Your task to perform on an android device: toggle location history Image 0: 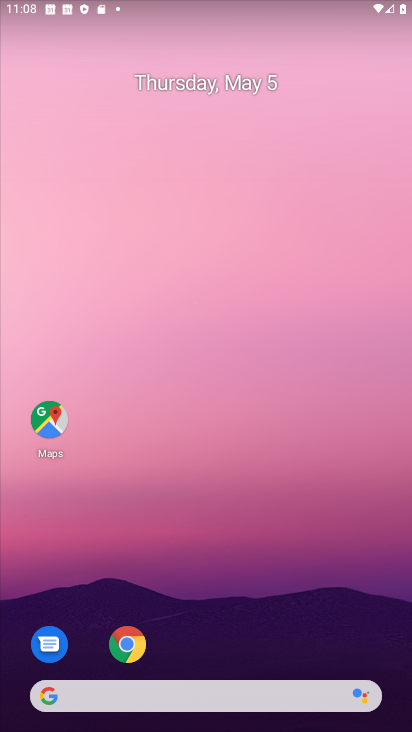
Step 0: drag from (206, 591) to (216, 158)
Your task to perform on an android device: toggle location history Image 1: 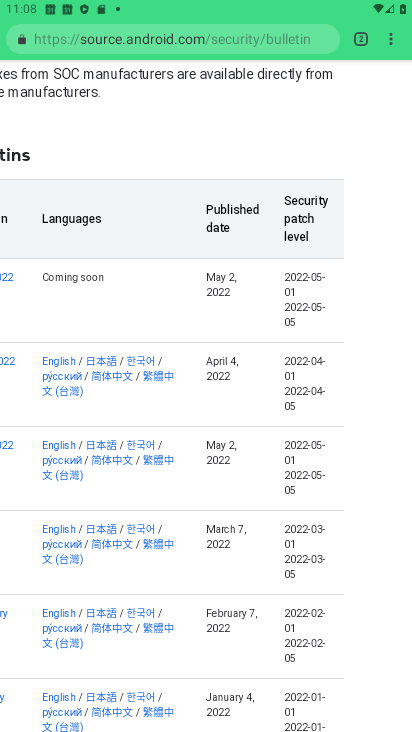
Step 1: drag from (186, 654) to (310, 224)
Your task to perform on an android device: toggle location history Image 2: 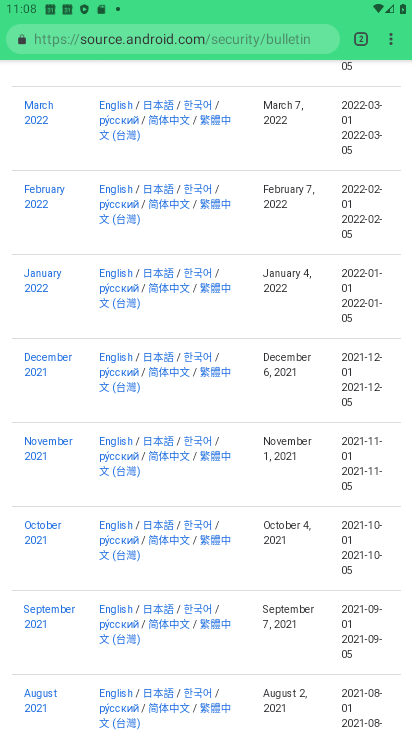
Step 2: drag from (221, 656) to (279, 324)
Your task to perform on an android device: toggle location history Image 3: 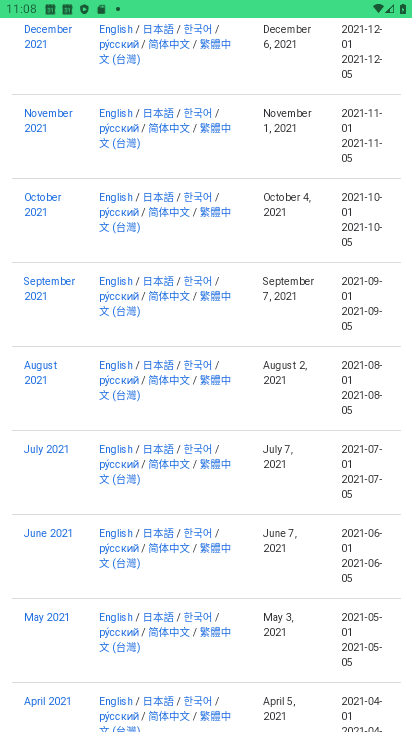
Step 3: drag from (244, 671) to (265, 305)
Your task to perform on an android device: toggle location history Image 4: 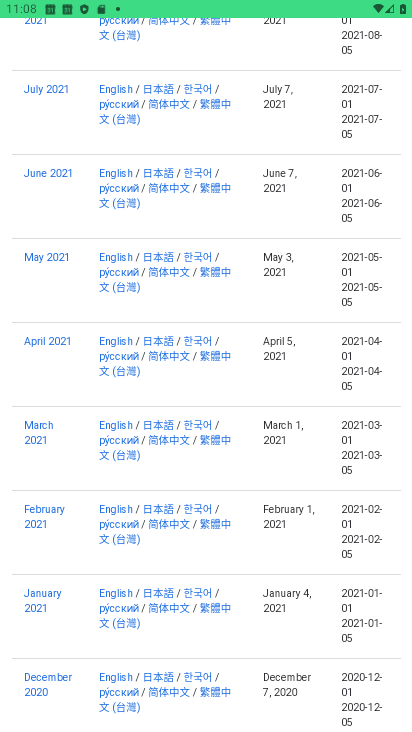
Step 4: drag from (226, 651) to (249, 340)
Your task to perform on an android device: toggle location history Image 5: 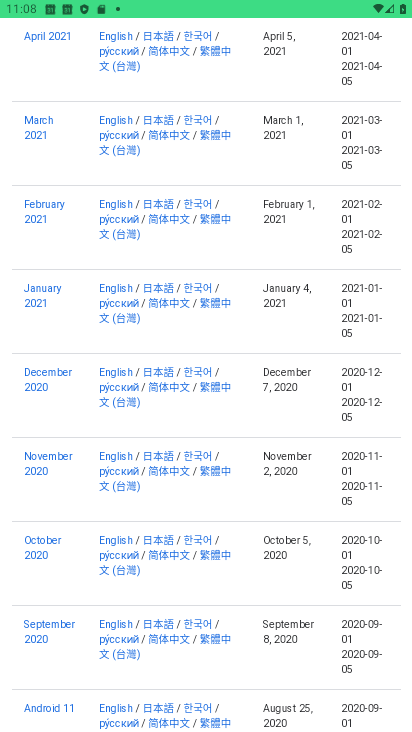
Step 5: drag from (261, 663) to (257, 404)
Your task to perform on an android device: toggle location history Image 6: 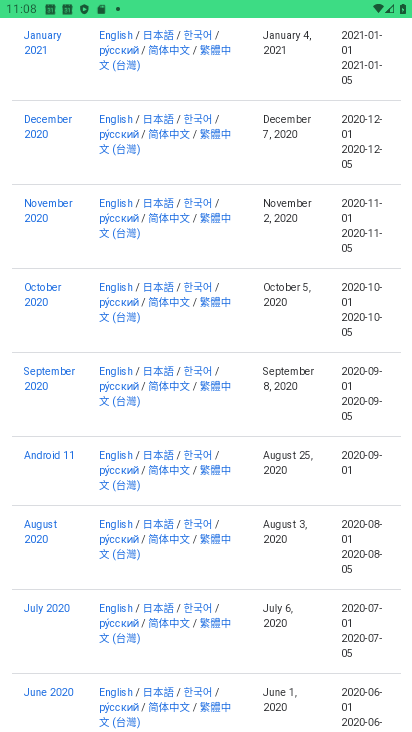
Step 6: drag from (261, 673) to (260, 445)
Your task to perform on an android device: toggle location history Image 7: 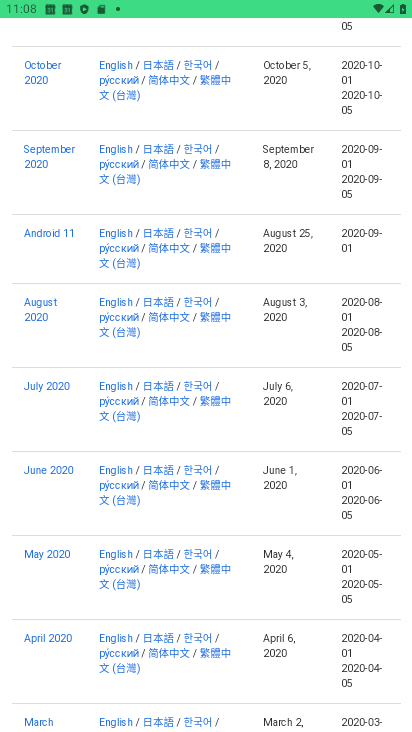
Step 7: drag from (245, 678) to (279, 431)
Your task to perform on an android device: toggle location history Image 8: 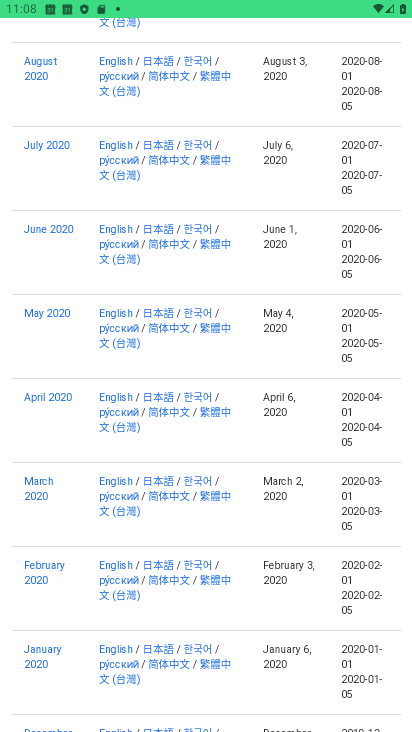
Step 8: drag from (254, 689) to (288, 444)
Your task to perform on an android device: toggle location history Image 9: 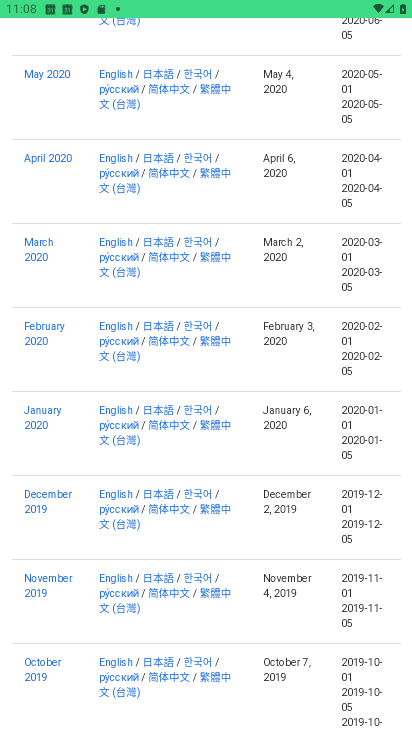
Step 9: drag from (288, 450) to (332, 707)
Your task to perform on an android device: toggle location history Image 10: 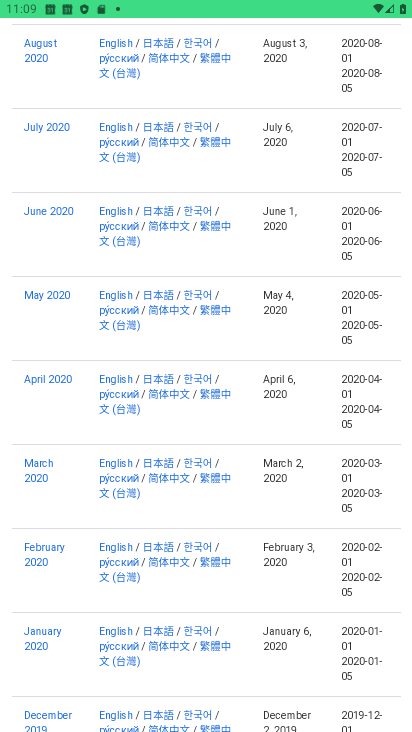
Step 10: drag from (275, 130) to (393, 653)
Your task to perform on an android device: toggle location history Image 11: 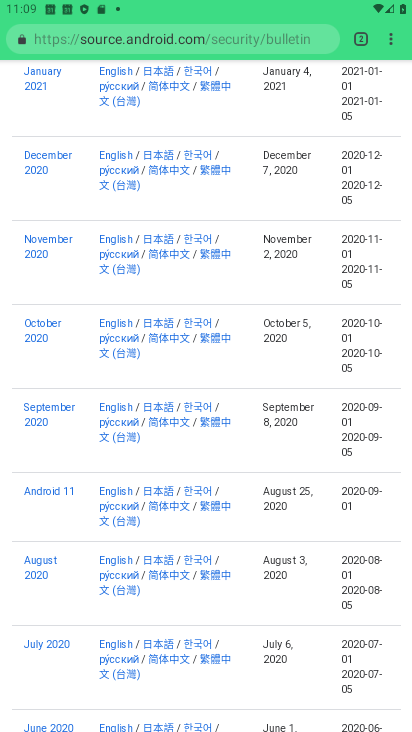
Step 11: drag from (244, 157) to (407, 591)
Your task to perform on an android device: toggle location history Image 12: 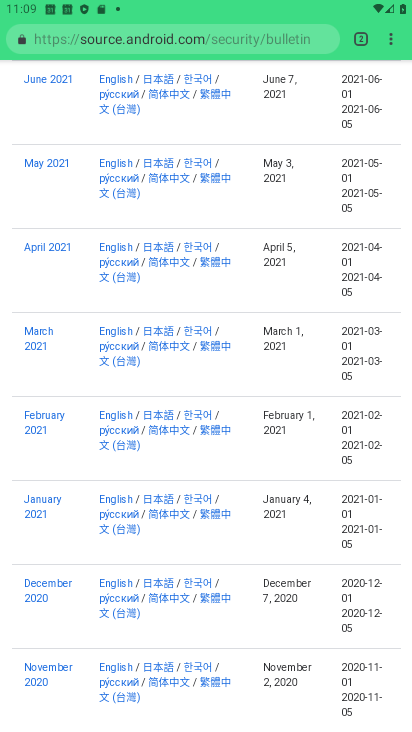
Step 12: drag from (289, 146) to (396, 710)
Your task to perform on an android device: toggle location history Image 13: 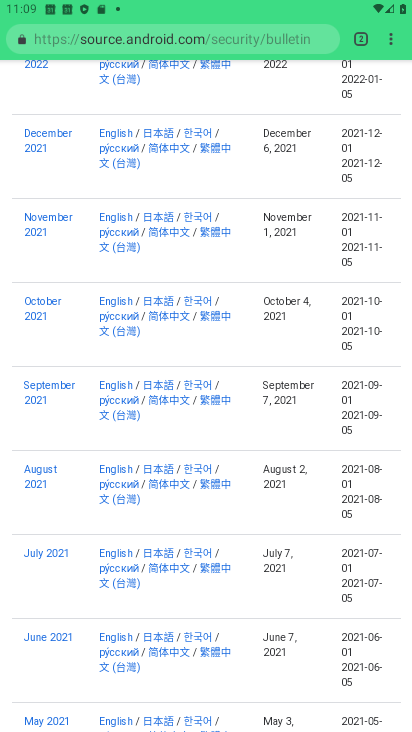
Step 13: click (179, 45)
Your task to perform on an android device: toggle location history Image 14: 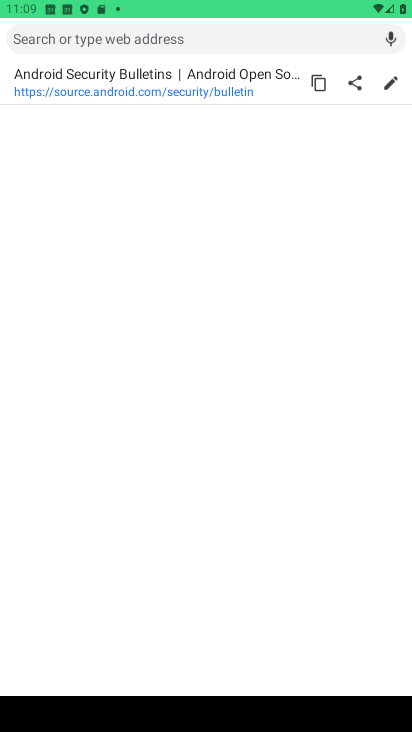
Step 14: press home button
Your task to perform on an android device: toggle location history Image 15: 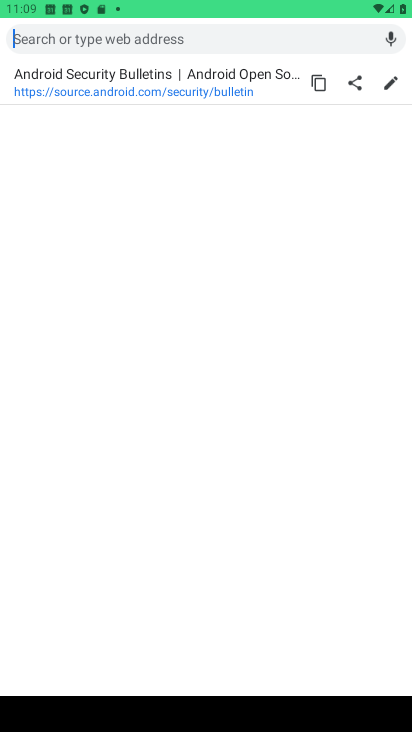
Step 15: press home button
Your task to perform on an android device: toggle location history Image 16: 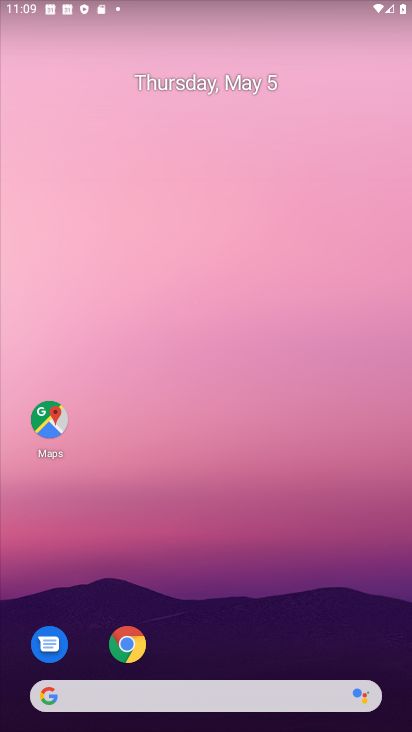
Step 16: drag from (219, 656) to (276, 77)
Your task to perform on an android device: toggle location history Image 17: 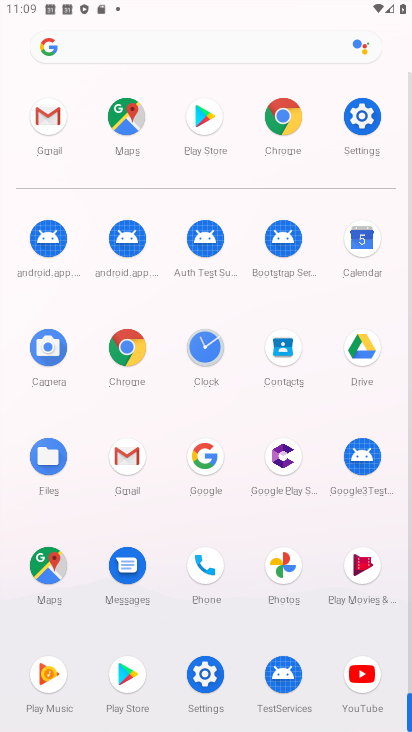
Step 17: click (357, 106)
Your task to perform on an android device: toggle location history Image 18: 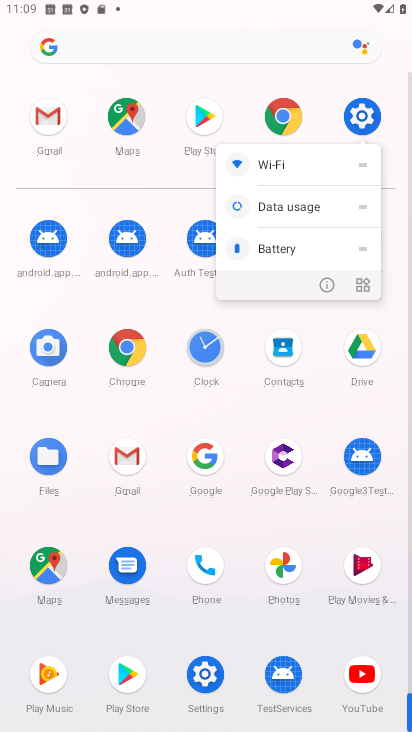
Step 18: click (331, 278)
Your task to perform on an android device: toggle location history Image 19: 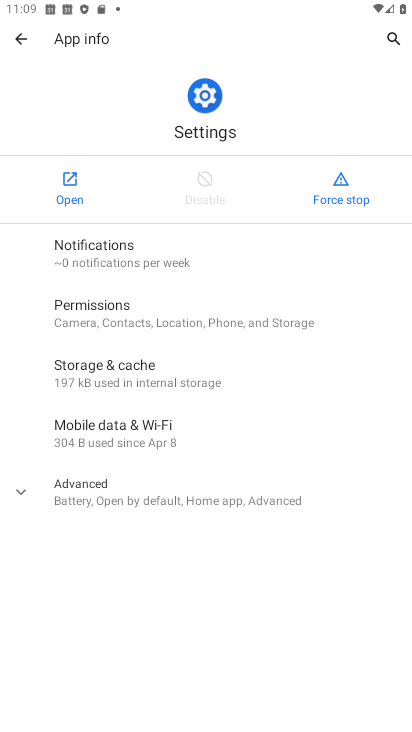
Step 19: click (67, 200)
Your task to perform on an android device: toggle location history Image 20: 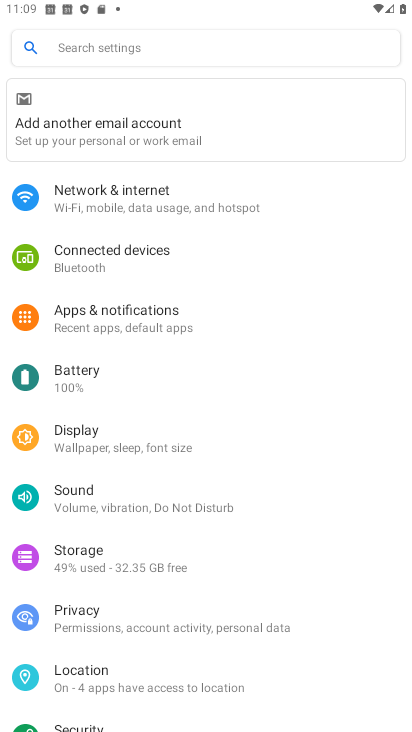
Step 20: drag from (209, 621) to (214, 185)
Your task to perform on an android device: toggle location history Image 21: 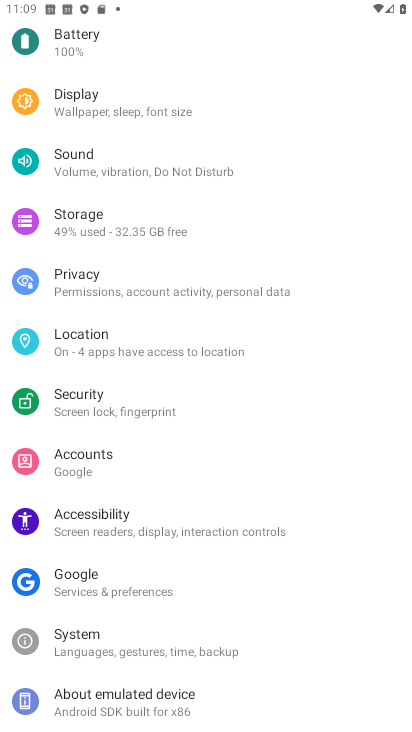
Step 21: click (94, 357)
Your task to perform on an android device: toggle location history Image 22: 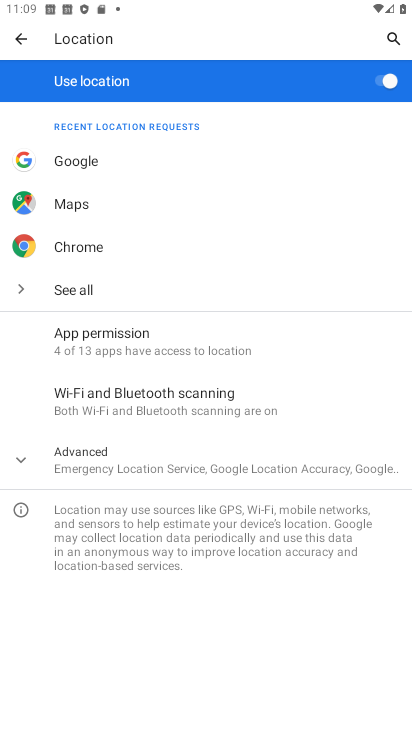
Step 22: click (135, 472)
Your task to perform on an android device: toggle location history Image 23: 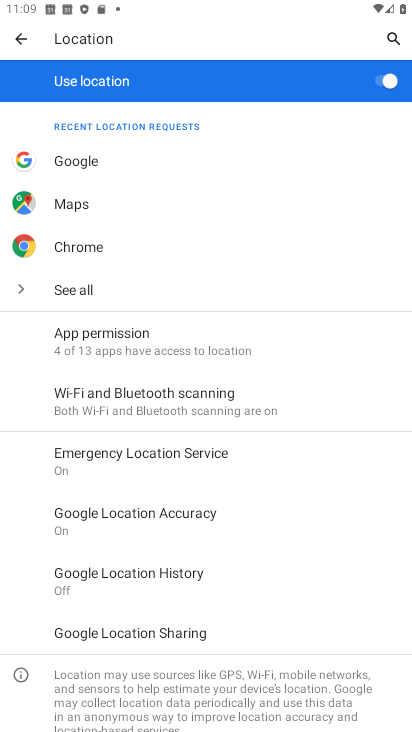
Step 23: drag from (211, 617) to (269, 359)
Your task to perform on an android device: toggle location history Image 24: 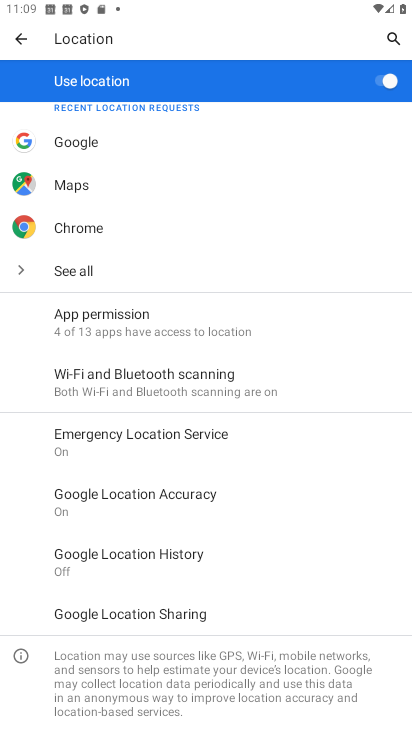
Step 24: drag from (188, 594) to (309, 145)
Your task to perform on an android device: toggle location history Image 25: 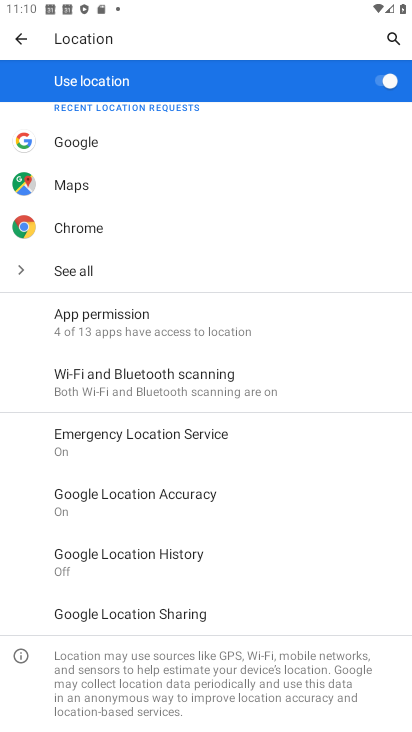
Step 25: drag from (221, 559) to (243, 291)
Your task to perform on an android device: toggle location history Image 26: 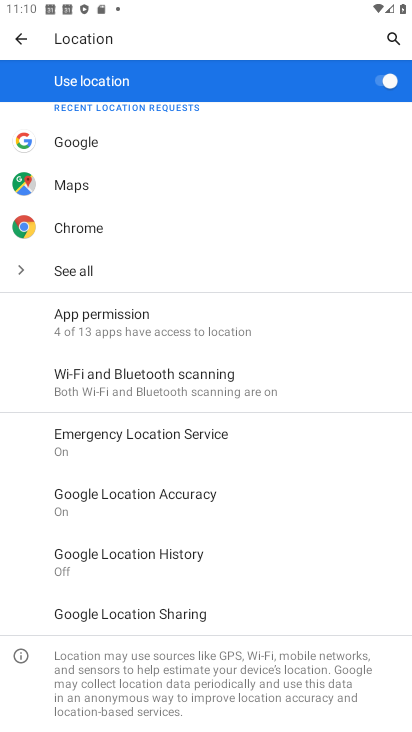
Step 26: drag from (209, 602) to (289, 270)
Your task to perform on an android device: toggle location history Image 27: 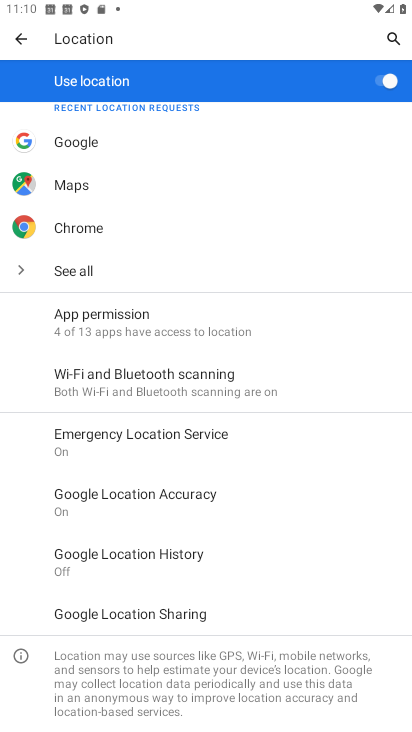
Step 27: click (184, 577)
Your task to perform on an android device: toggle location history Image 28: 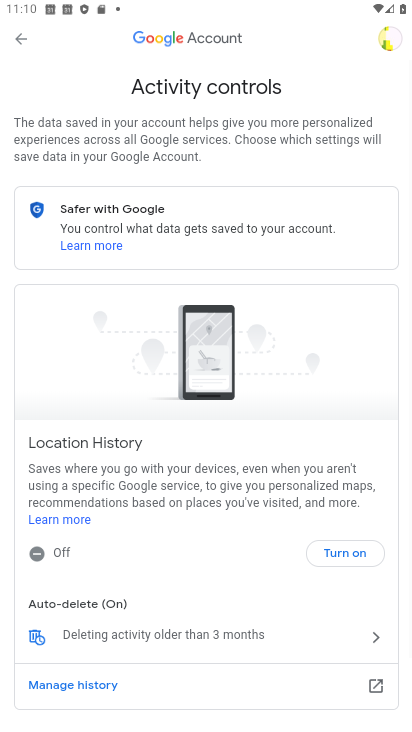
Step 28: drag from (189, 591) to (275, 155)
Your task to perform on an android device: toggle location history Image 29: 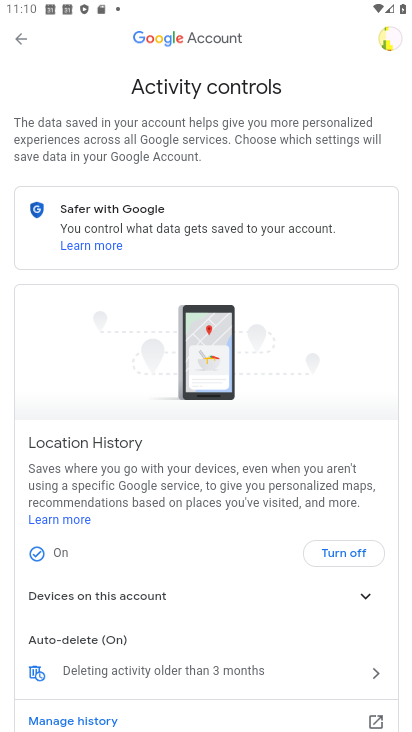
Step 29: drag from (216, 564) to (226, 466)
Your task to perform on an android device: toggle location history Image 30: 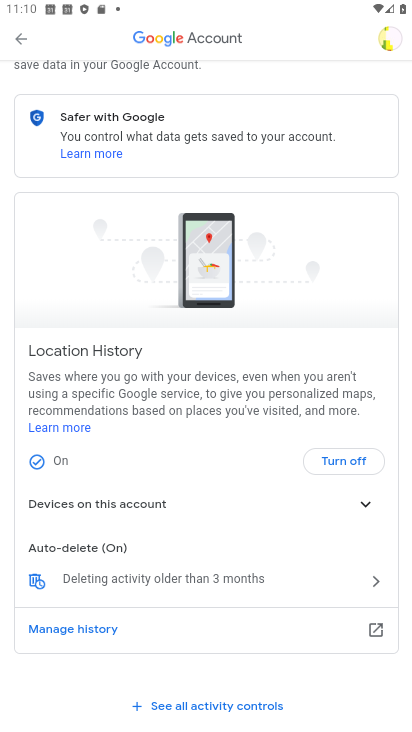
Step 30: drag from (186, 637) to (216, 283)
Your task to perform on an android device: toggle location history Image 31: 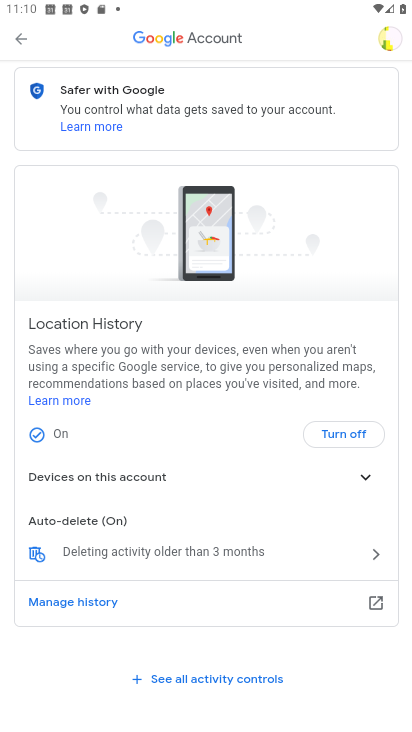
Step 31: drag from (237, 625) to (237, 296)
Your task to perform on an android device: toggle location history Image 32: 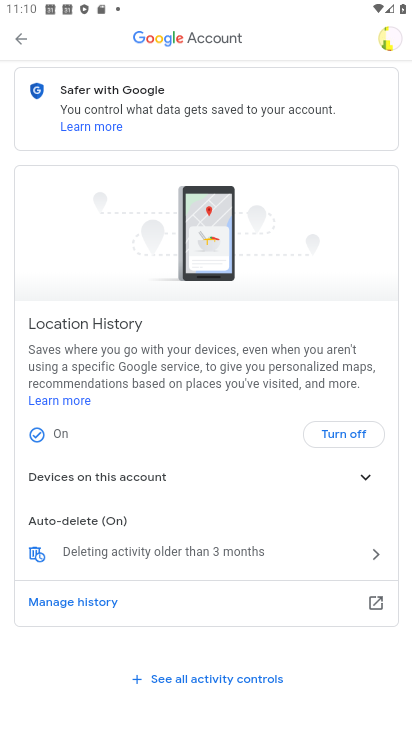
Step 32: drag from (166, 635) to (378, 469)
Your task to perform on an android device: toggle location history Image 33: 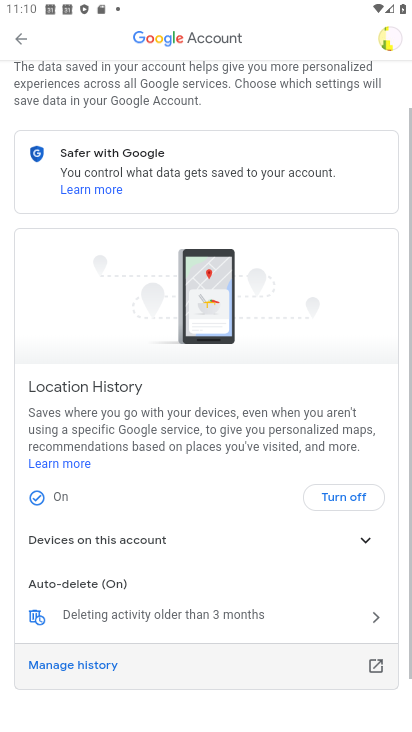
Step 33: drag from (212, 644) to (225, 477)
Your task to perform on an android device: toggle location history Image 34: 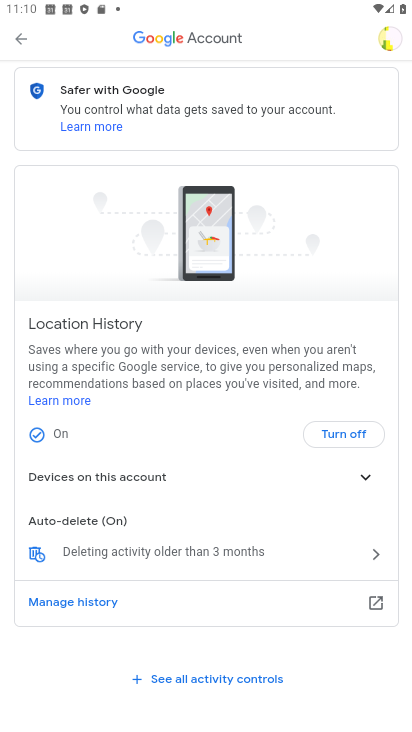
Step 34: drag from (169, 625) to (201, 498)
Your task to perform on an android device: toggle location history Image 35: 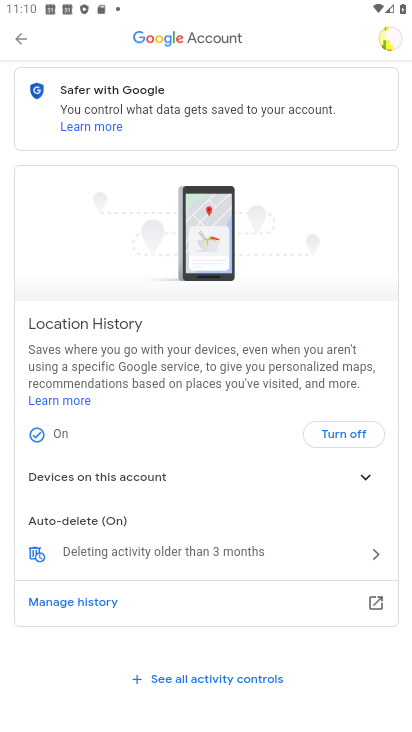
Step 35: drag from (236, 481) to (248, 435)
Your task to perform on an android device: toggle location history Image 36: 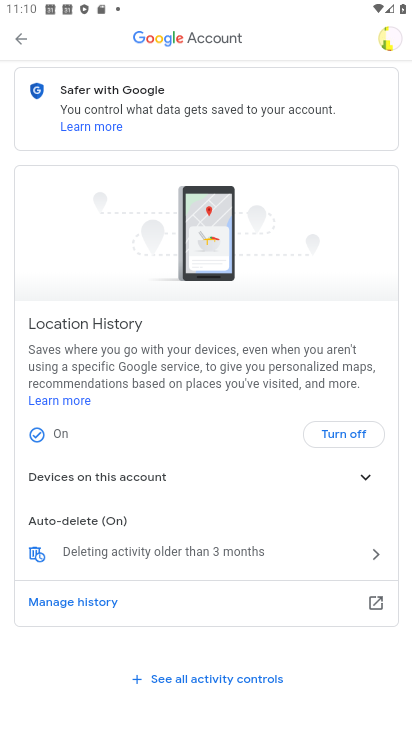
Step 36: drag from (264, 275) to (266, 731)
Your task to perform on an android device: toggle location history Image 37: 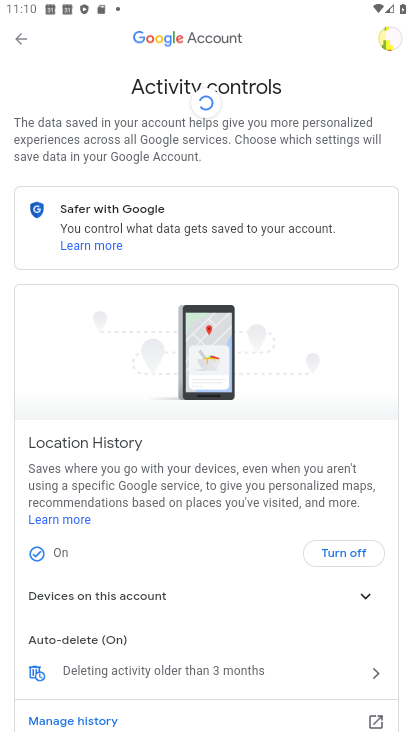
Step 37: drag from (200, 627) to (287, 335)
Your task to perform on an android device: toggle location history Image 38: 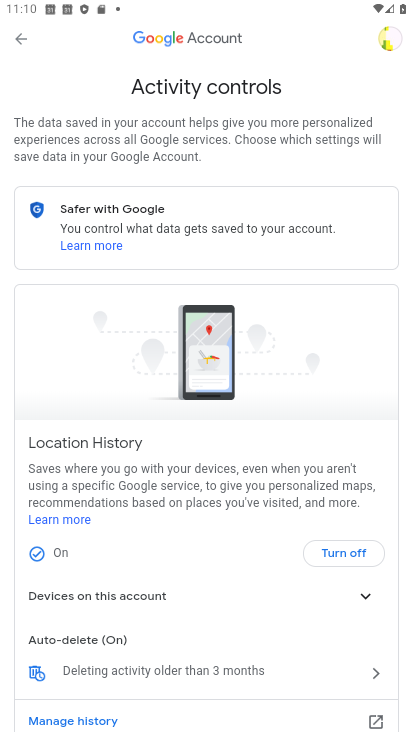
Step 38: drag from (196, 670) to (273, 342)
Your task to perform on an android device: toggle location history Image 39: 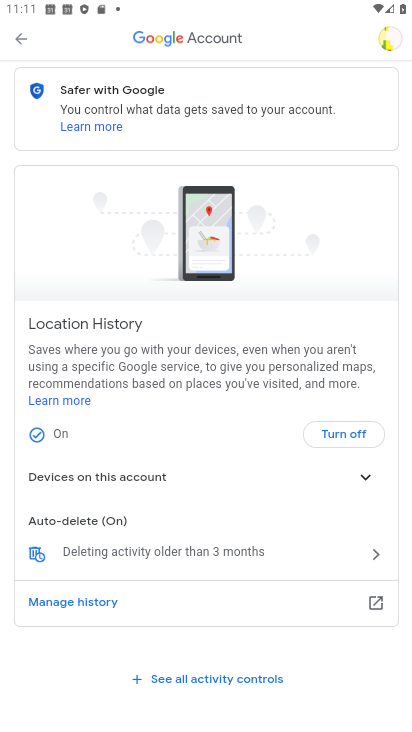
Step 39: drag from (199, 524) to (239, 279)
Your task to perform on an android device: toggle location history Image 40: 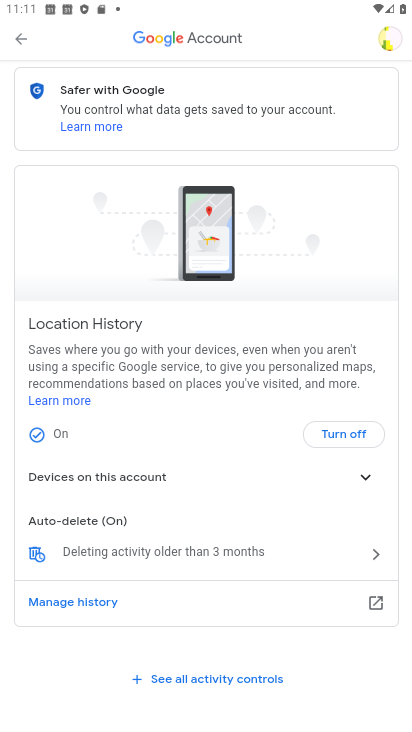
Step 40: drag from (222, 251) to (230, 643)
Your task to perform on an android device: toggle location history Image 41: 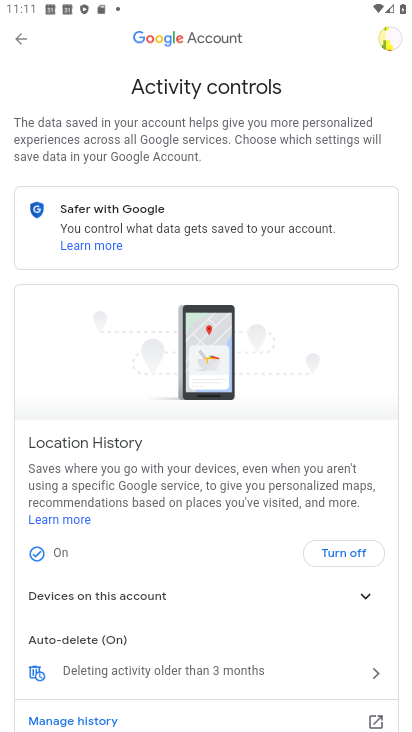
Step 41: click (355, 556)
Your task to perform on an android device: toggle location history Image 42: 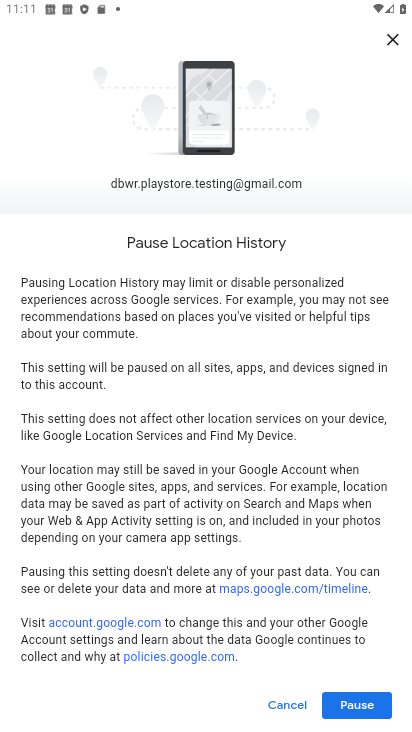
Step 42: drag from (224, 576) to (264, 79)
Your task to perform on an android device: toggle location history Image 43: 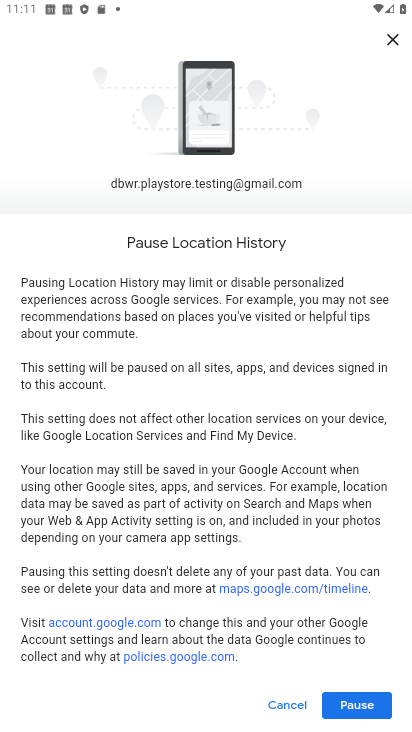
Step 43: click (341, 718)
Your task to perform on an android device: toggle location history Image 44: 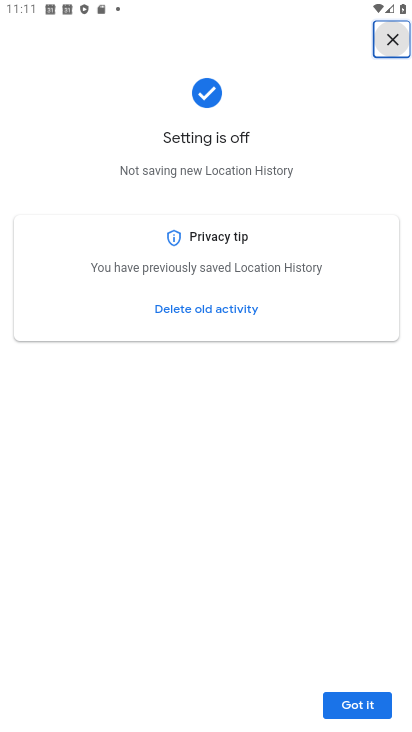
Step 44: click (365, 708)
Your task to perform on an android device: toggle location history Image 45: 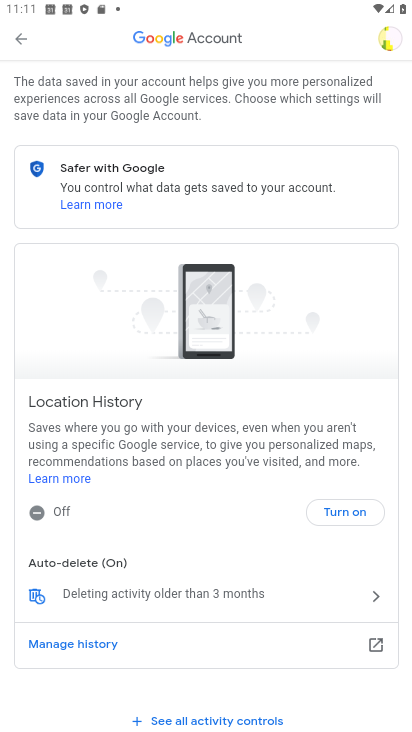
Step 45: task complete